Your task to perform on an android device: turn on location history Image 0: 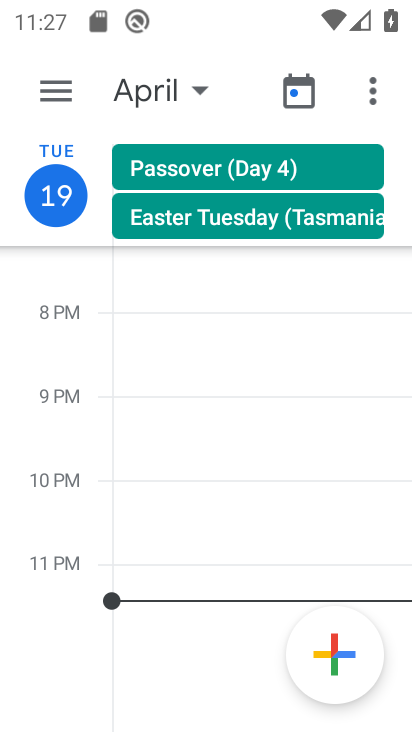
Step 0: press home button
Your task to perform on an android device: turn on location history Image 1: 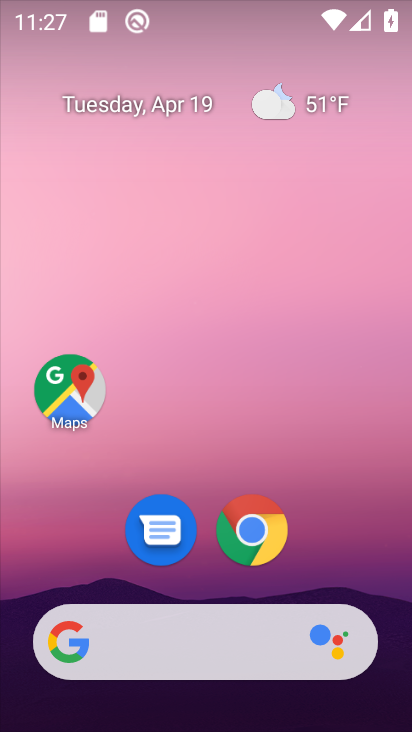
Step 1: drag from (197, 647) to (350, 54)
Your task to perform on an android device: turn on location history Image 2: 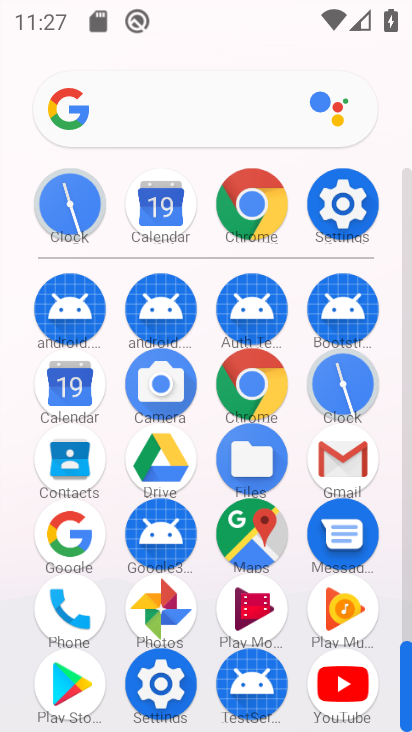
Step 2: click (353, 211)
Your task to perform on an android device: turn on location history Image 3: 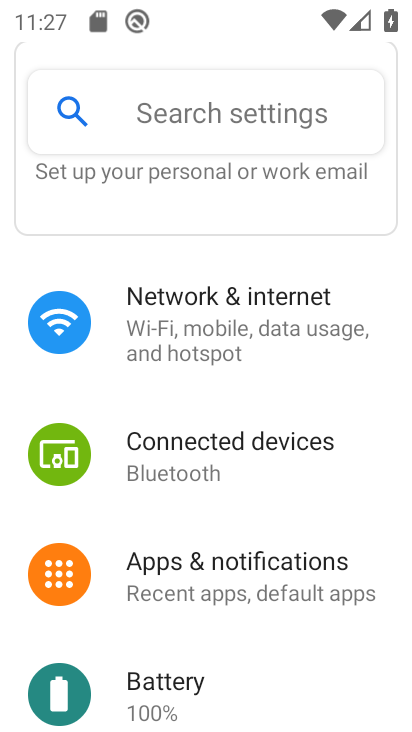
Step 3: drag from (178, 641) to (345, 183)
Your task to perform on an android device: turn on location history Image 4: 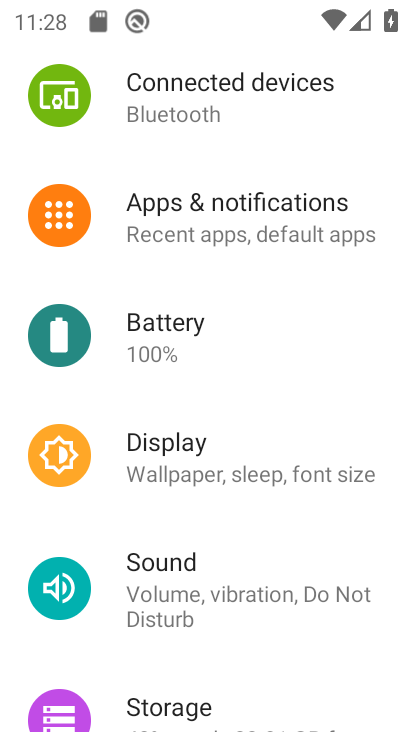
Step 4: drag from (221, 607) to (354, 96)
Your task to perform on an android device: turn on location history Image 5: 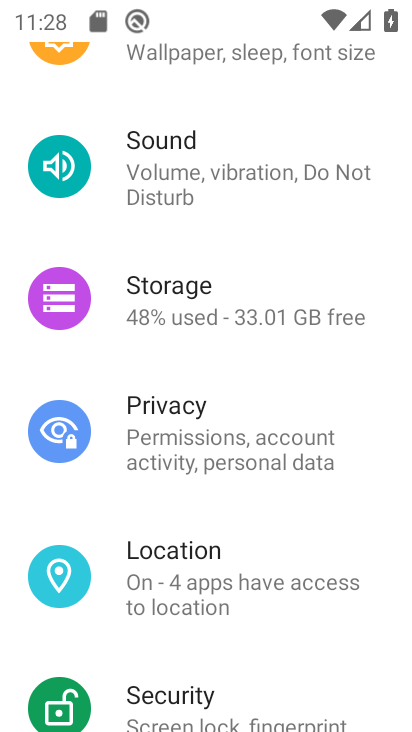
Step 5: click (170, 554)
Your task to perform on an android device: turn on location history Image 6: 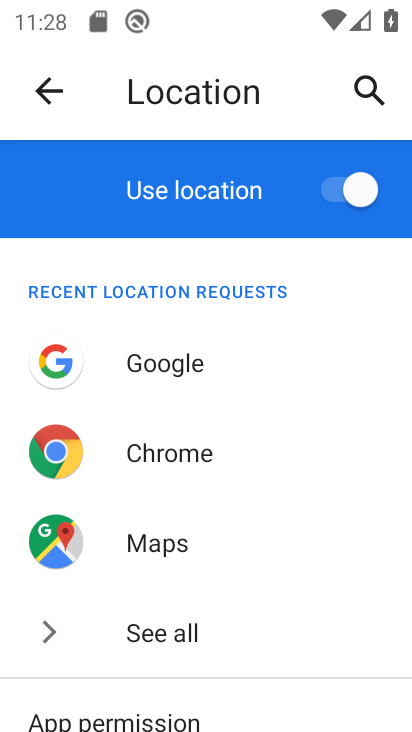
Step 6: drag from (258, 547) to (391, 31)
Your task to perform on an android device: turn on location history Image 7: 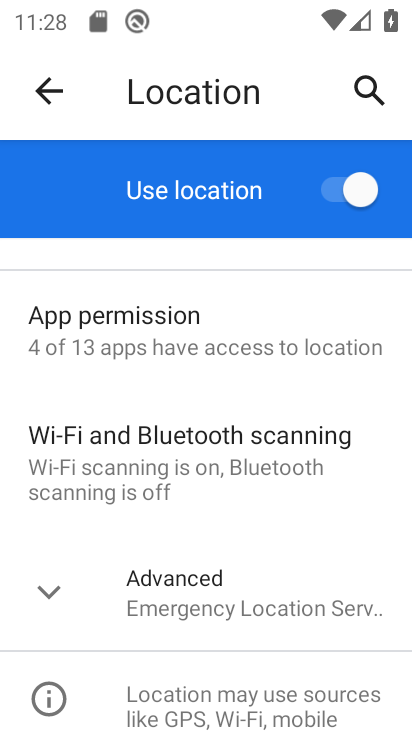
Step 7: click (150, 597)
Your task to perform on an android device: turn on location history Image 8: 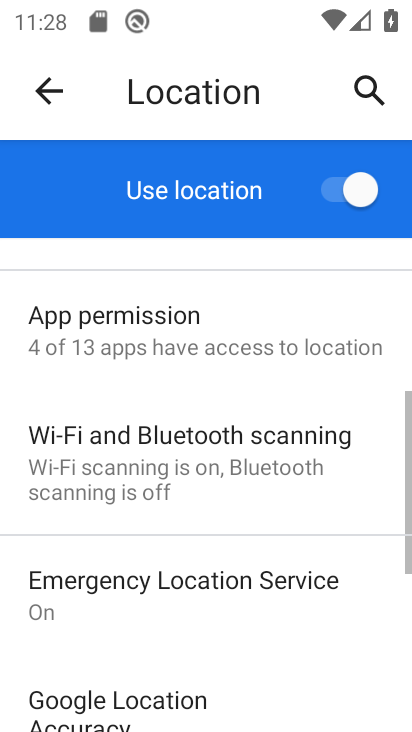
Step 8: drag from (168, 602) to (329, 96)
Your task to perform on an android device: turn on location history Image 9: 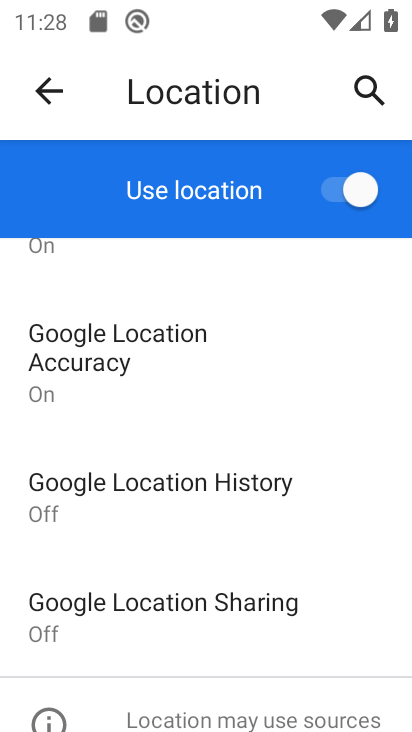
Step 9: click (163, 486)
Your task to perform on an android device: turn on location history Image 10: 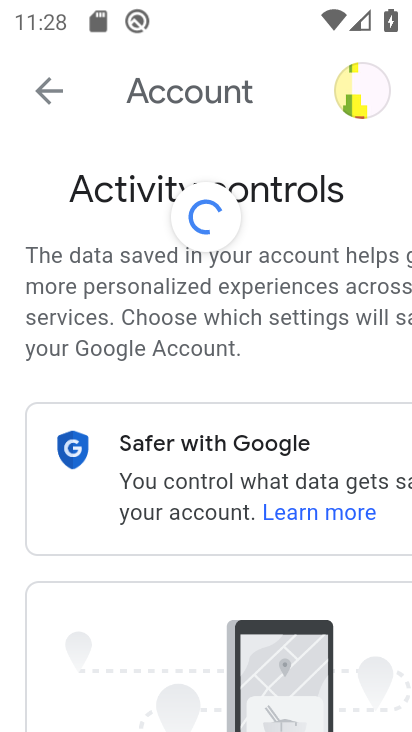
Step 10: drag from (139, 675) to (342, 147)
Your task to perform on an android device: turn on location history Image 11: 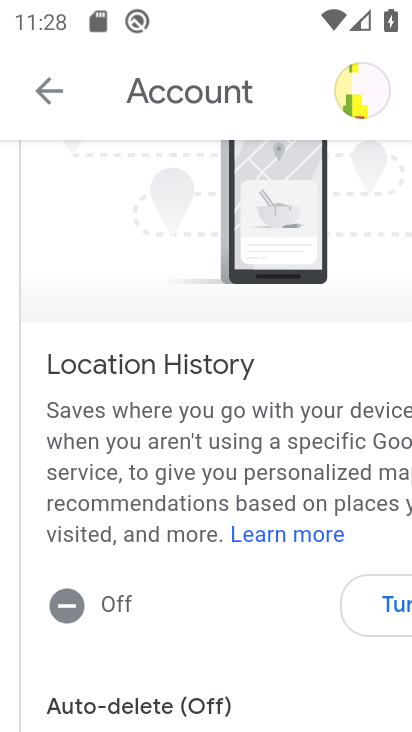
Step 11: click (390, 601)
Your task to perform on an android device: turn on location history Image 12: 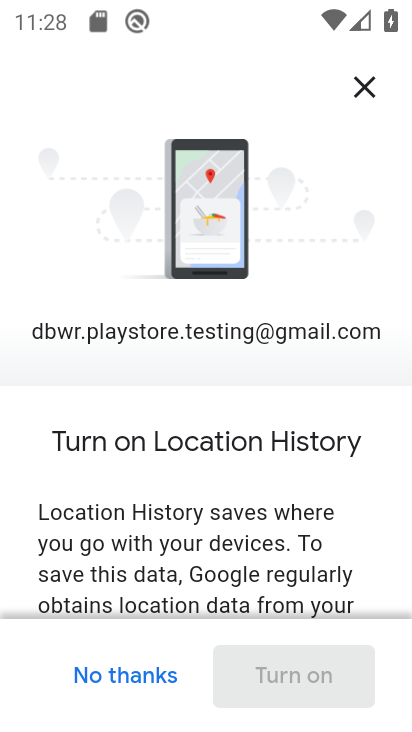
Step 12: drag from (243, 555) to (302, 221)
Your task to perform on an android device: turn on location history Image 13: 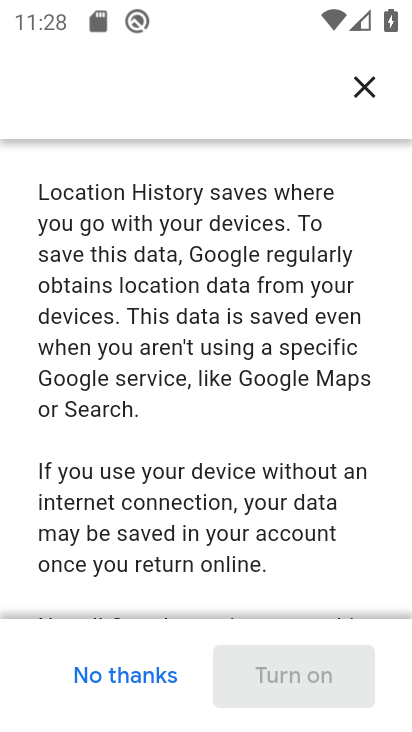
Step 13: drag from (161, 559) to (268, 227)
Your task to perform on an android device: turn on location history Image 14: 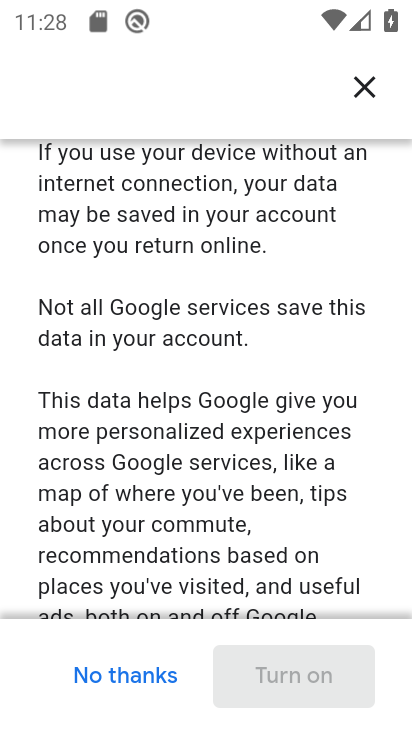
Step 14: drag from (239, 524) to (329, 158)
Your task to perform on an android device: turn on location history Image 15: 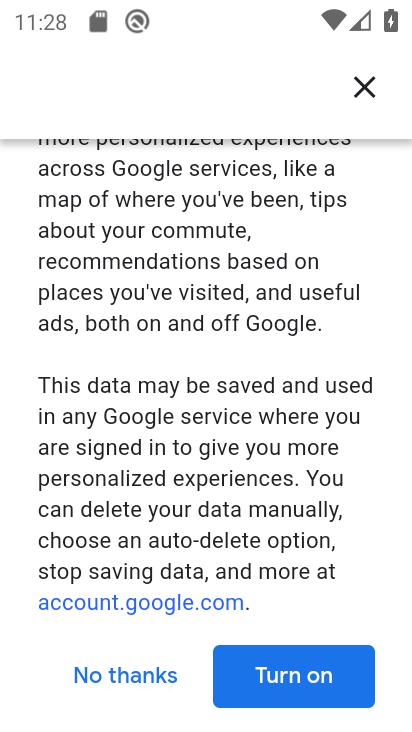
Step 15: click (302, 678)
Your task to perform on an android device: turn on location history Image 16: 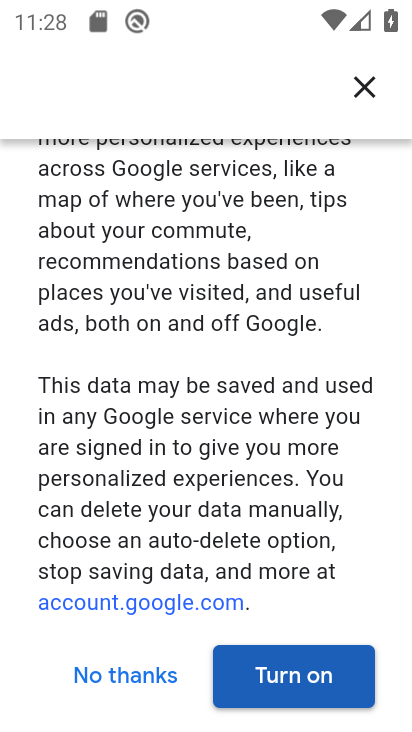
Step 16: click (288, 675)
Your task to perform on an android device: turn on location history Image 17: 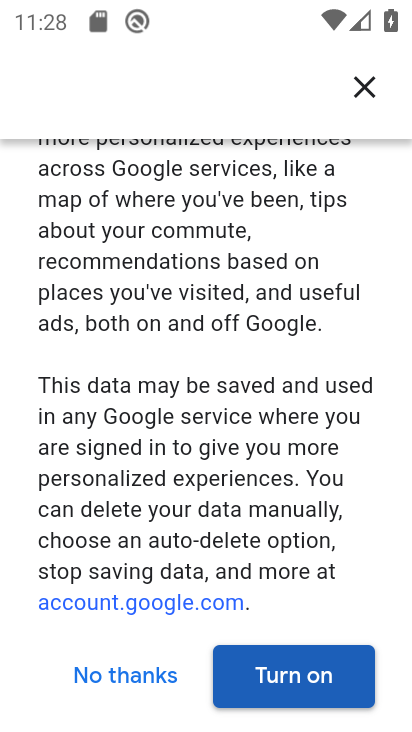
Step 17: click (302, 678)
Your task to perform on an android device: turn on location history Image 18: 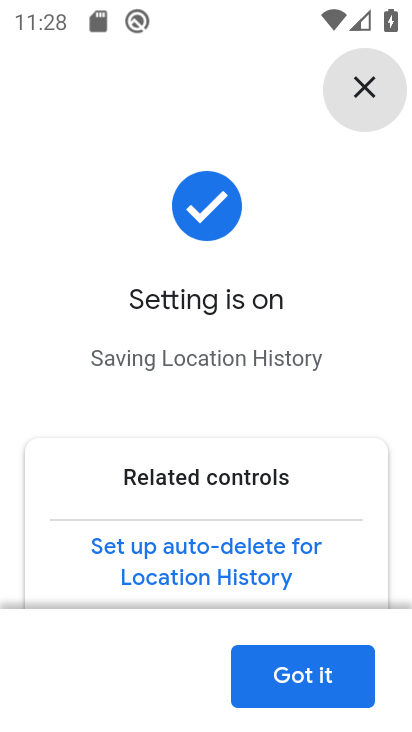
Step 18: click (307, 677)
Your task to perform on an android device: turn on location history Image 19: 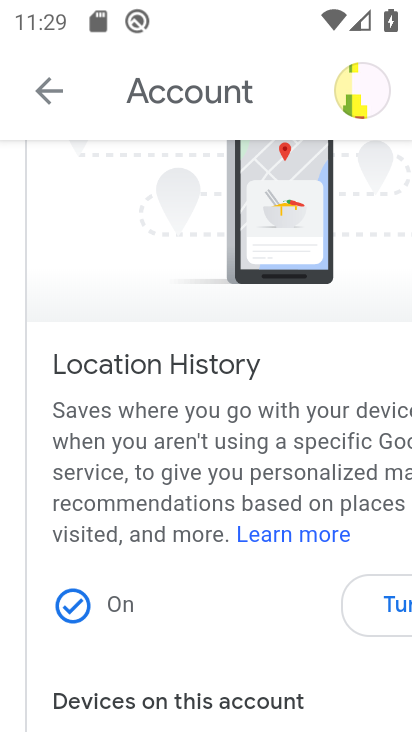
Step 19: task complete